Your task to perform on an android device: Open battery settings Image 0: 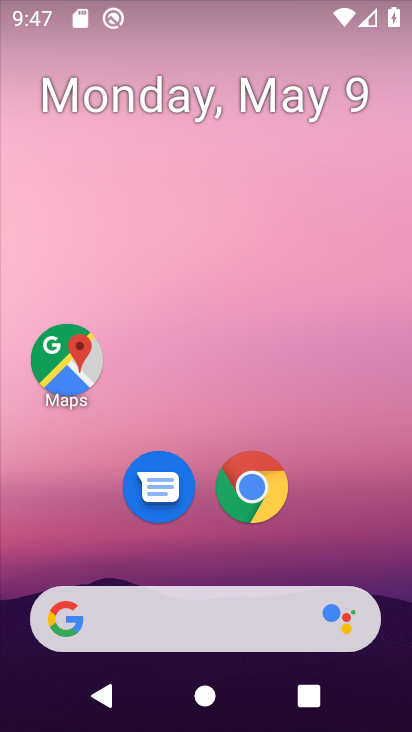
Step 0: drag from (388, 618) to (304, 0)
Your task to perform on an android device: Open battery settings Image 1: 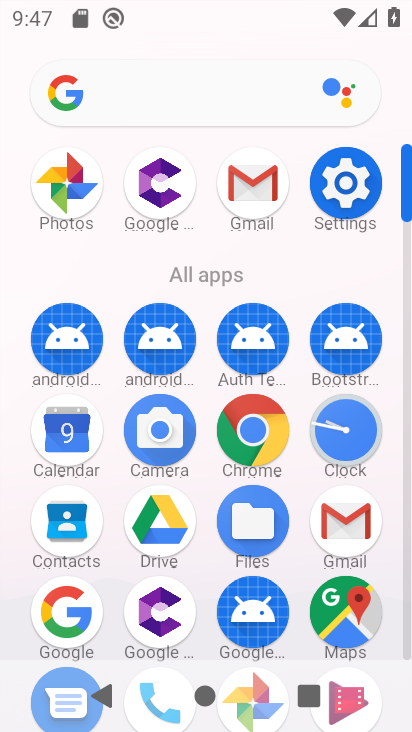
Step 1: click (343, 183)
Your task to perform on an android device: Open battery settings Image 2: 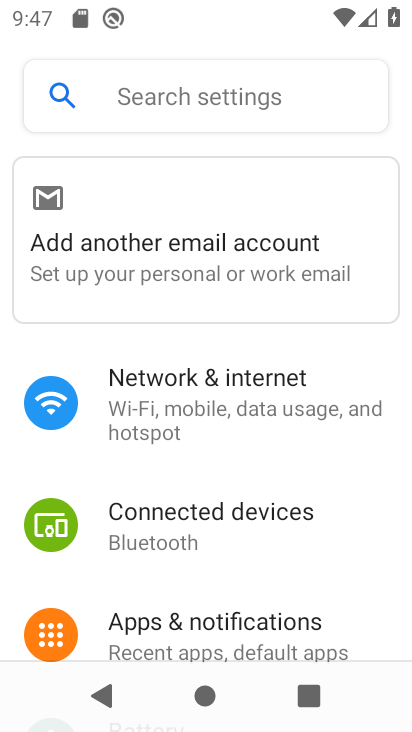
Step 2: click (322, 58)
Your task to perform on an android device: Open battery settings Image 3: 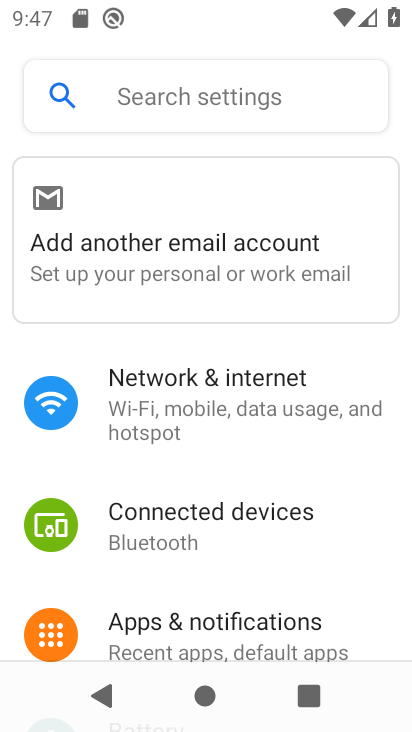
Step 3: drag from (291, 531) to (294, 195)
Your task to perform on an android device: Open battery settings Image 4: 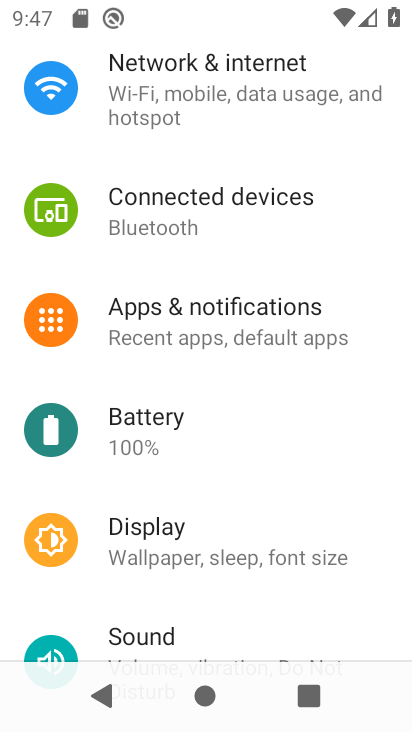
Step 4: drag from (280, 535) to (320, 201)
Your task to perform on an android device: Open battery settings Image 5: 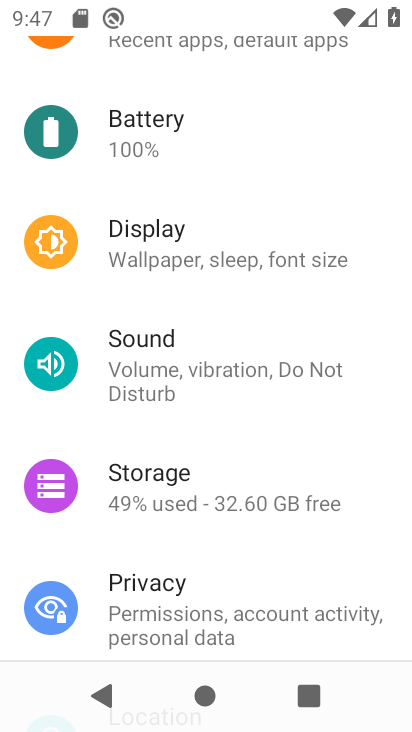
Step 5: click (183, 136)
Your task to perform on an android device: Open battery settings Image 6: 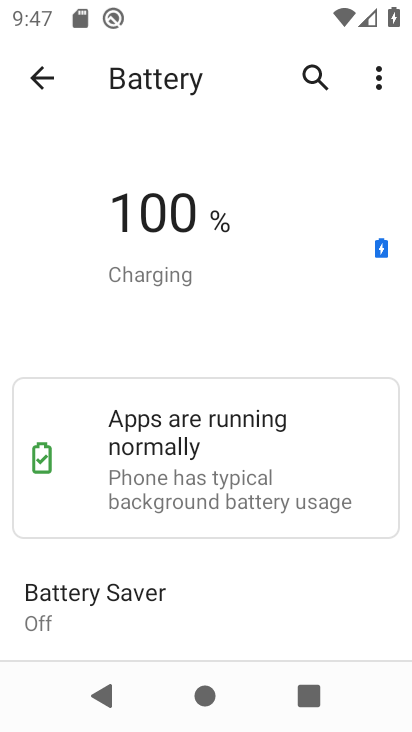
Step 6: task complete